Your task to perform on an android device: Open settings Image 0: 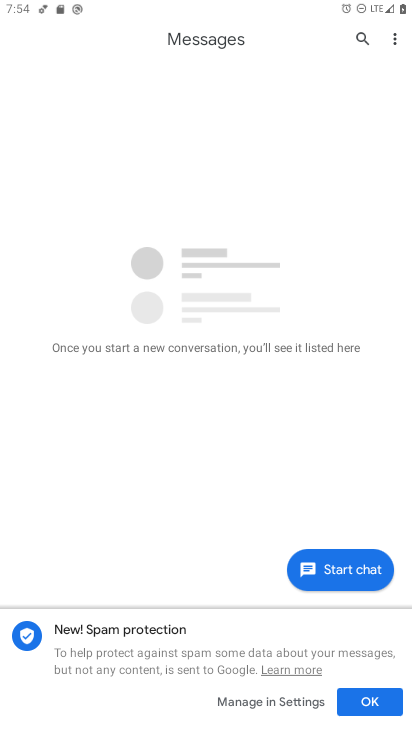
Step 0: press home button
Your task to perform on an android device: Open settings Image 1: 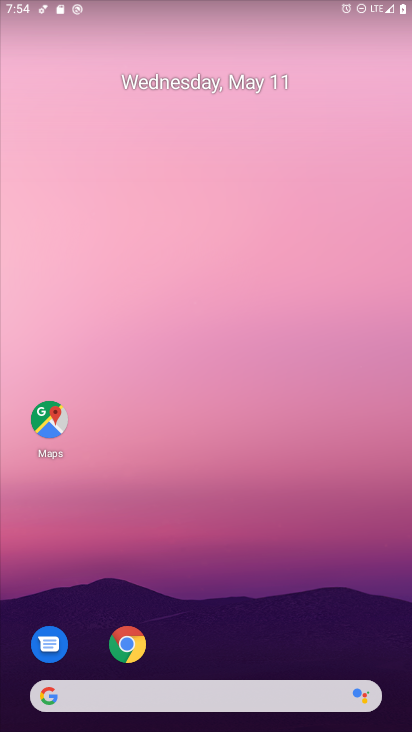
Step 1: drag from (242, 569) to (160, 162)
Your task to perform on an android device: Open settings Image 2: 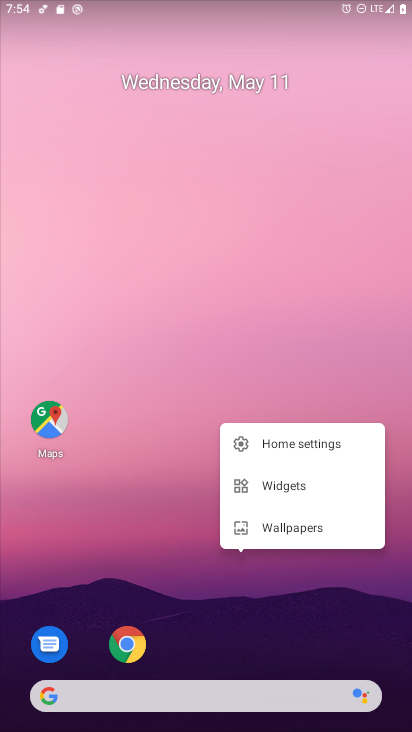
Step 2: click (158, 558)
Your task to perform on an android device: Open settings Image 3: 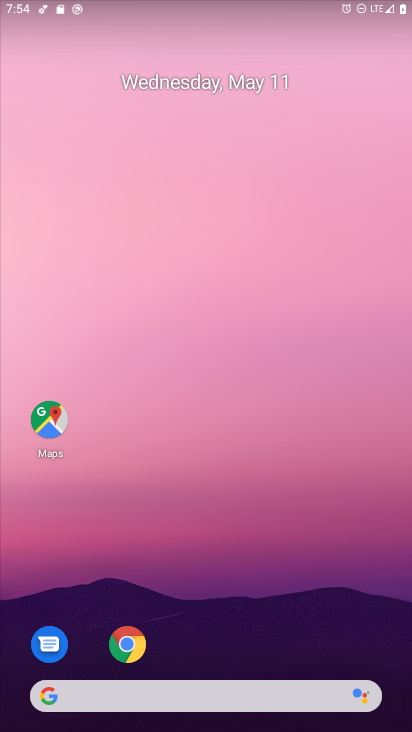
Step 3: drag from (161, 534) to (159, 203)
Your task to perform on an android device: Open settings Image 4: 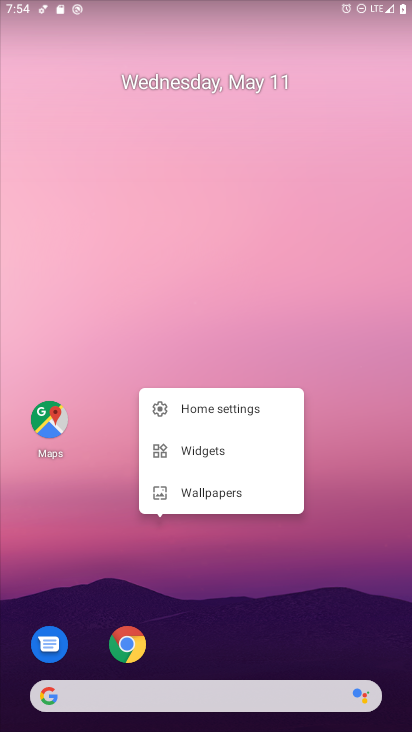
Step 4: click (255, 605)
Your task to perform on an android device: Open settings Image 5: 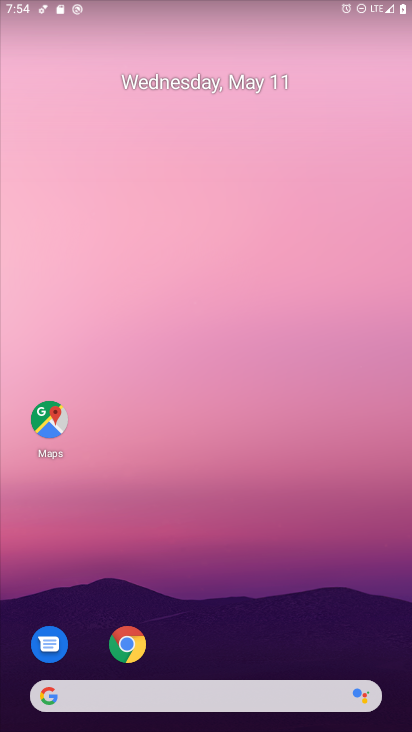
Step 5: drag from (276, 635) to (204, 61)
Your task to perform on an android device: Open settings Image 6: 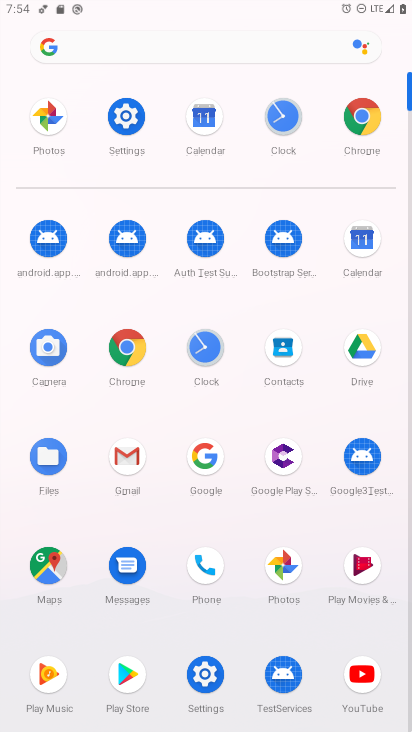
Step 6: click (201, 677)
Your task to perform on an android device: Open settings Image 7: 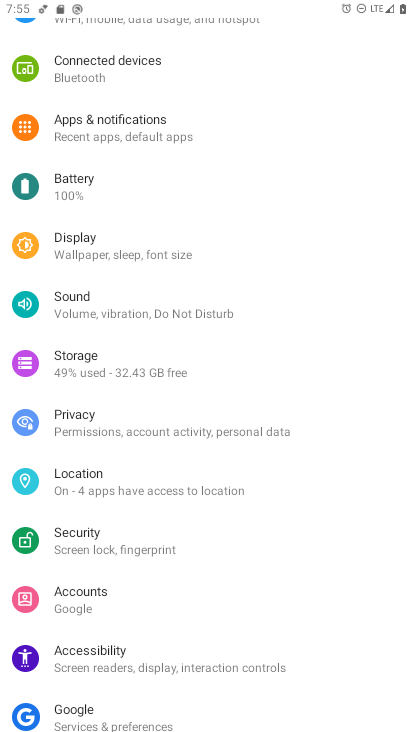
Step 7: task complete